Your task to perform on an android device: Show me popular games on the Play Store Image 0: 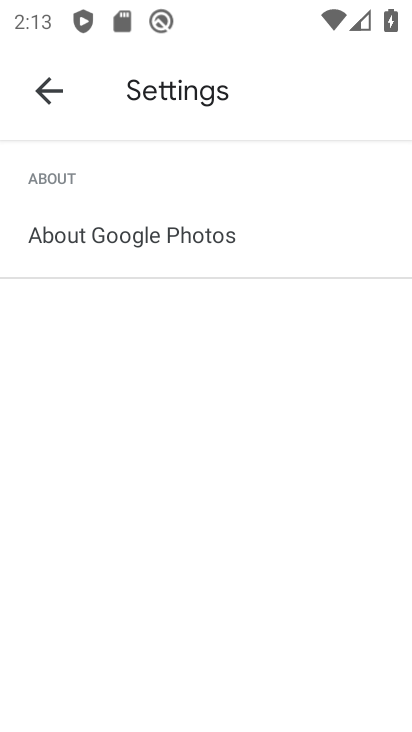
Step 0: press home button
Your task to perform on an android device: Show me popular games on the Play Store Image 1: 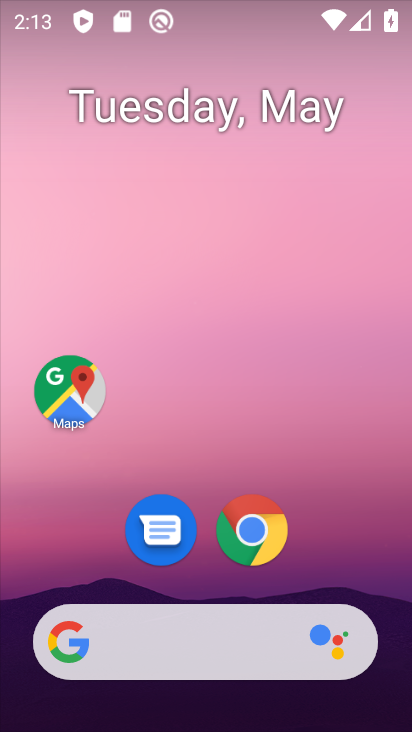
Step 1: drag from (27, 576) to (235, 84)
Your task to perform on an android device: Show me popular games on the Play Store Image 2: 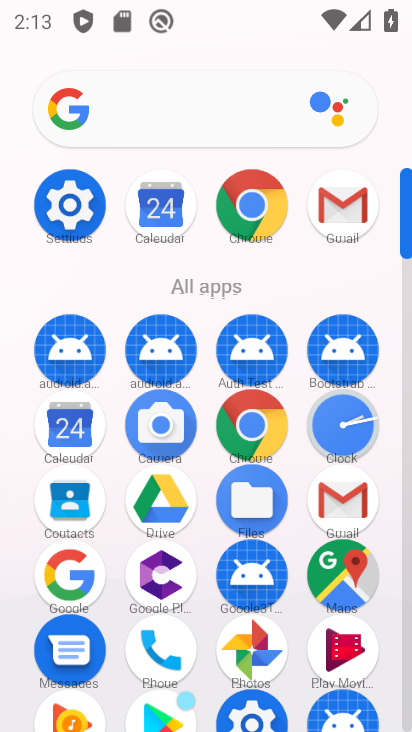
Step 2: click (158, 703)
Your task to perform on an android device: Show me popular games on the Play Store Image 3: 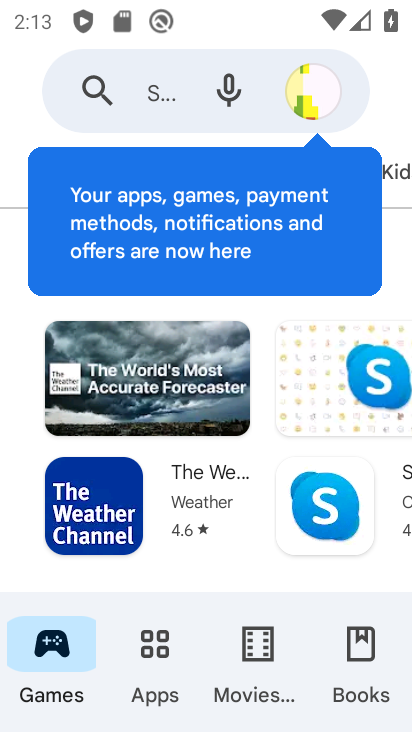
Step 3: task complete